Your task to perform on an android device: change notifications settings Image 0: 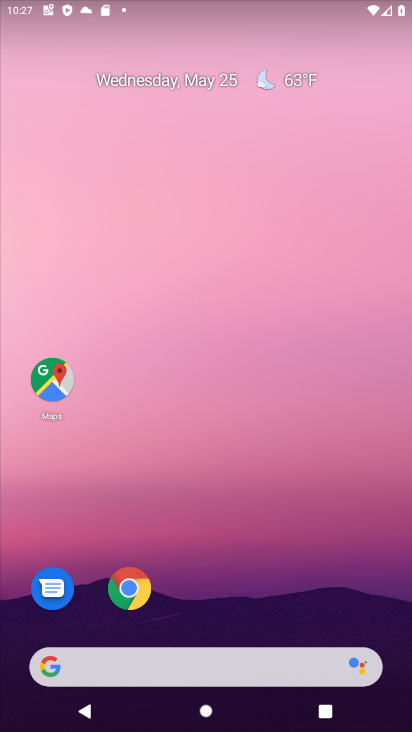
Step 0: drag from (248, 613) to (186, 55)
Your task to perform on an android device: change notifications settings Image 1: 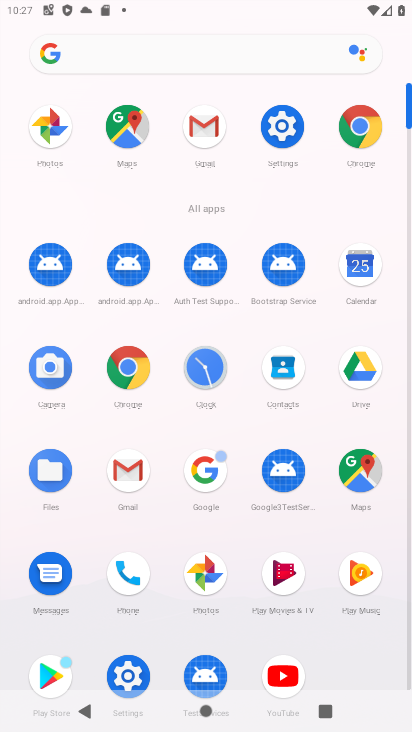
Step 1: click (287, 116)
Your task to perform on an android device: change notifications settings Image 2: 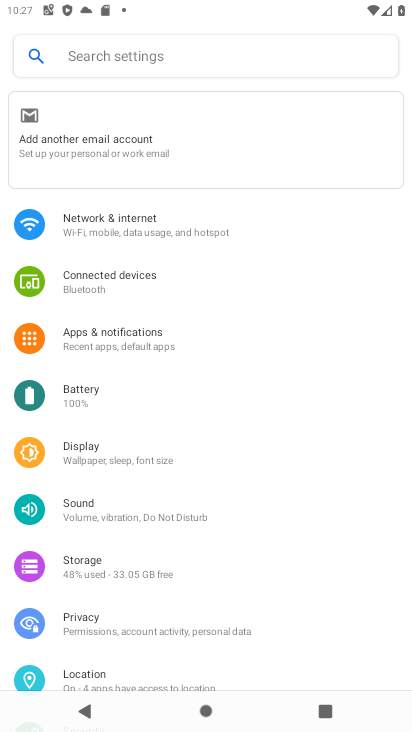
Step 2: drag from (198, 544) to (154, 426)
Your task to perform on an android device: change notifications settings Image 3: 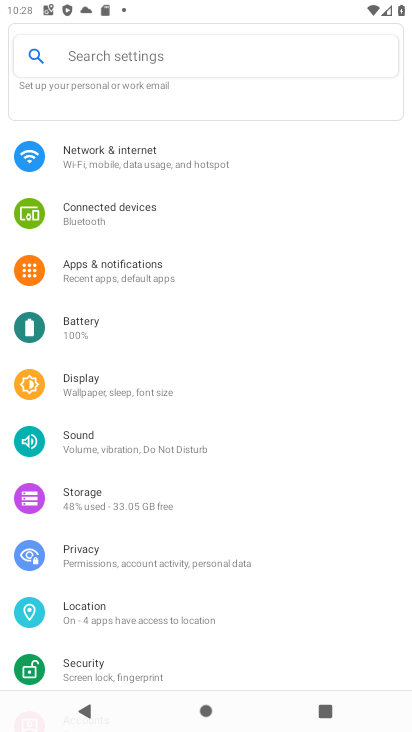
Step 3: click (145, 273)
Your task to perform on an android device: change notifications settings Image 4: 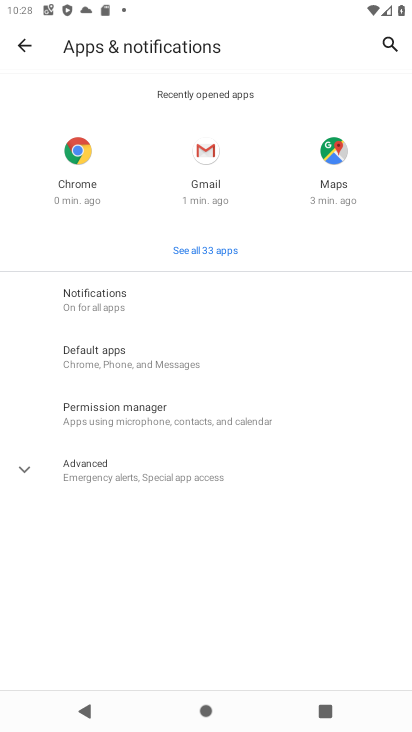
Step 4: click (151, 297)
Your task to perform on an android device: change notifications settings Image 5: 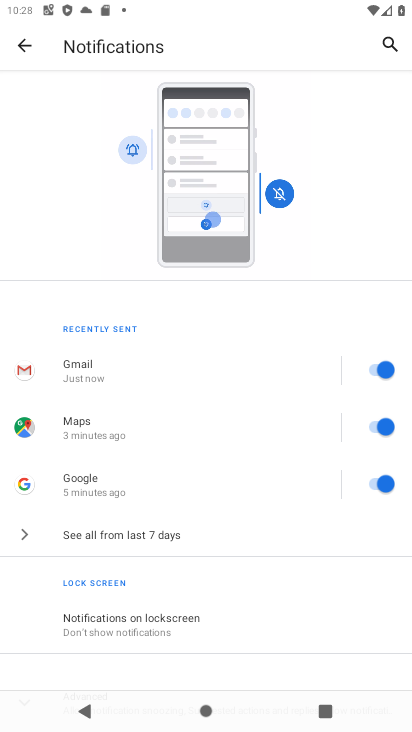
Step 5: drag from (284, 556) to (264, 128)
Your task to perform on an android device: change notifications settings Image 6: 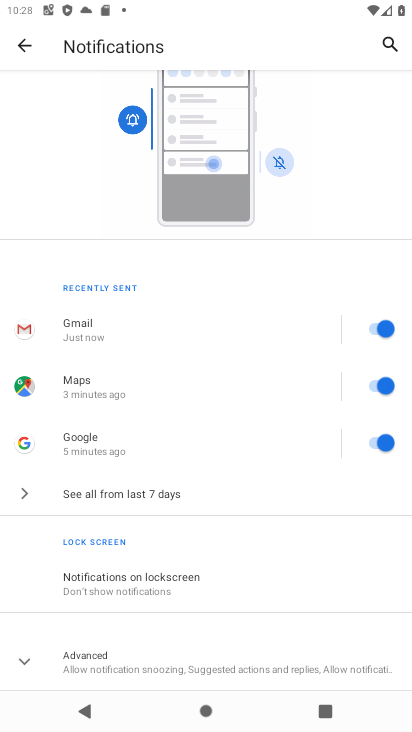
Step 6: click (145, 656)
Your task to perform on an android device: change notifications settings Image 7: 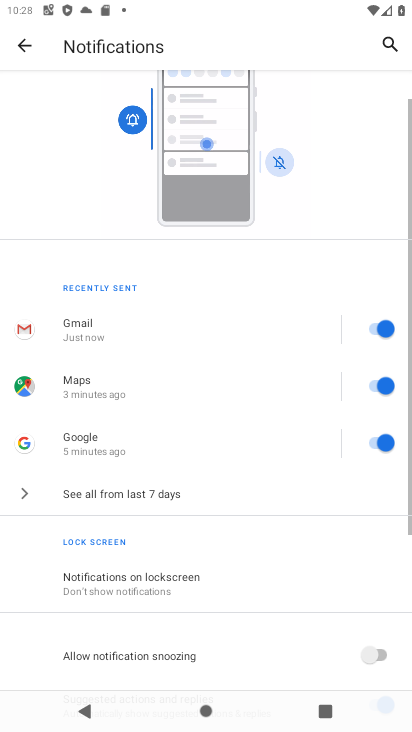
Step 7: drag from (217, 624) to (232, 263)
Your task to perform on an android device: change notifications settings Image 8: 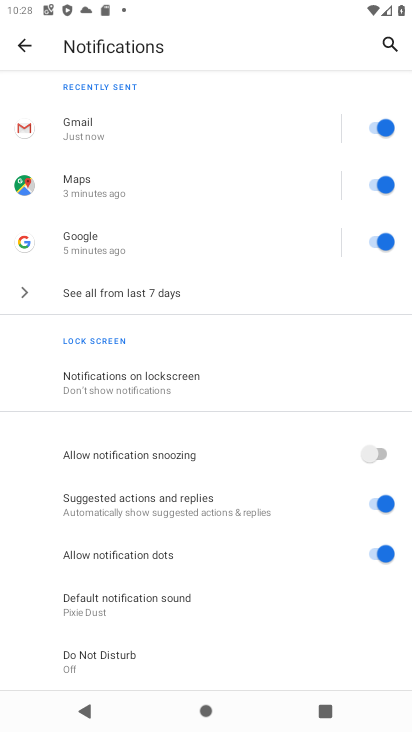
Step 8: click (377, 553)
Your task to perform on an android device: change notifications settings Image 9: 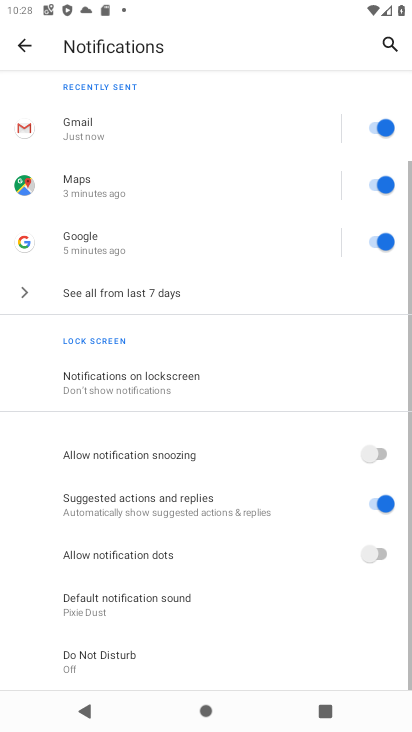
Step 9: click (379, 508)
Your task to perform on an android device: change notifications settings Image 10: 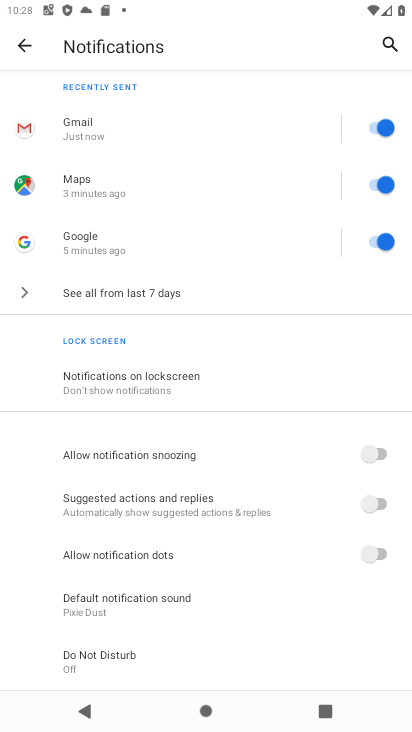
Step 10: task complete